Your task to perform on an android device: toggle priority inbox in the gmail app Image 0: 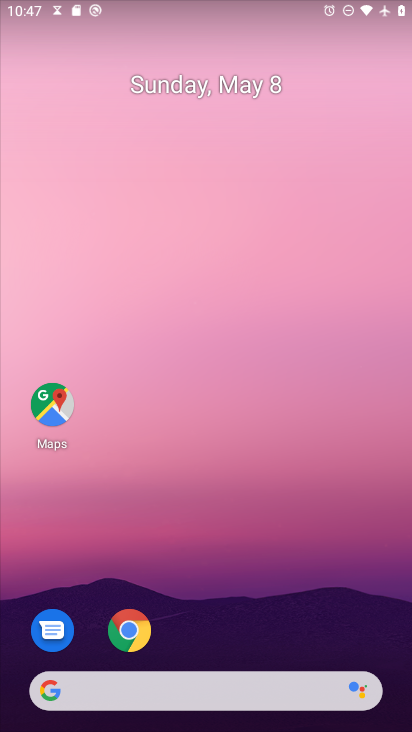
Step 0: drag from (165, 695) to (343, 239)
Your task to perform on an android device: toggle priority inbox in the gmail app Image 1: 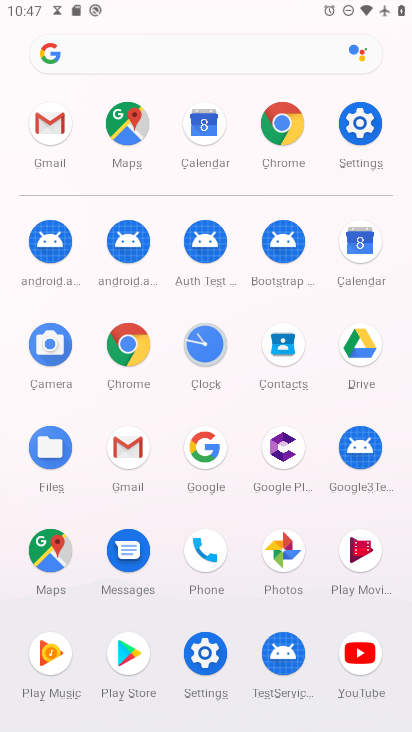
Step 1: click (52, 126)
Your task to perform on an android device: toggle priority inbox in the gmail app Image 2: 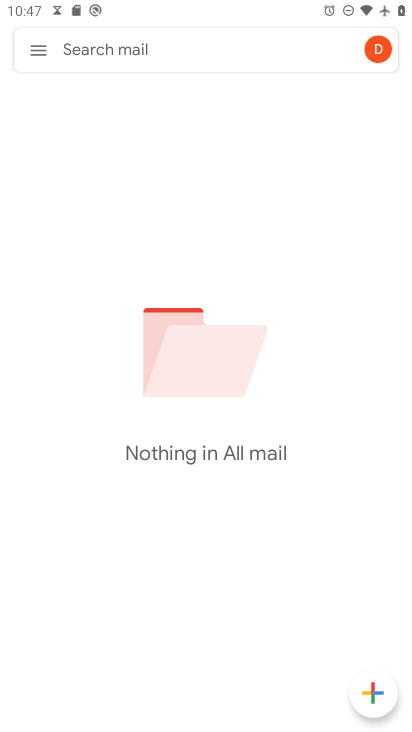
Step 2: click (45, 53)
Your task to perform on an android device: toggle priority inbox in the gmail app Image 3: 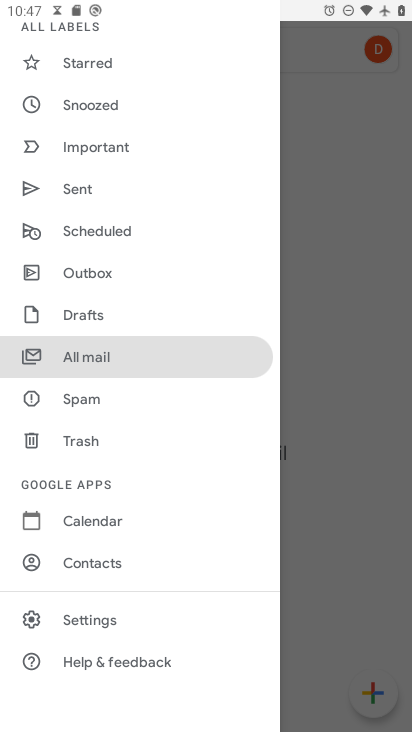
Step 3: click (82, 626)
Your task to perform on an android device: toggle priority inbox in the gmail app Image 4: 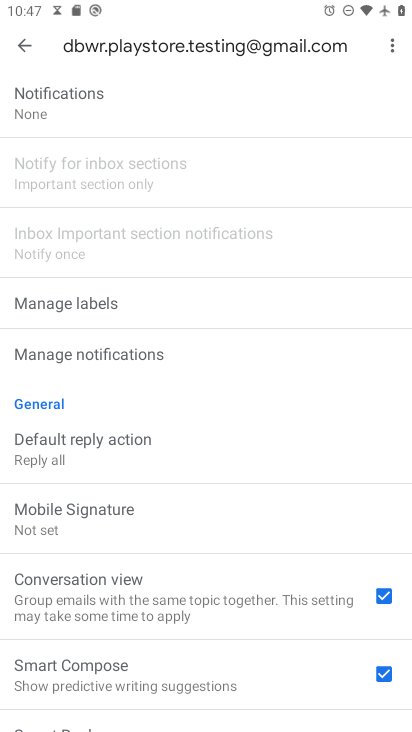
Step 4: drag from (244, 142) to (300, 433)
Your task to perform on an android device: toggle priority inbox in the gmail app Image 5: 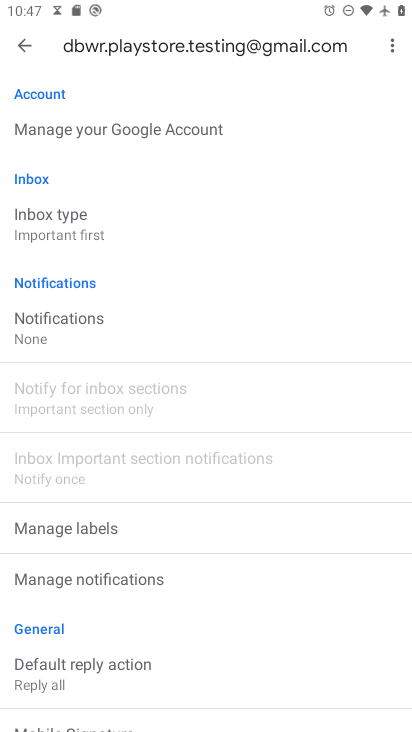
Step 5: click (78, 223)
Your task to perform on an android device: toggle priority inbox in the gmail app Image 6: 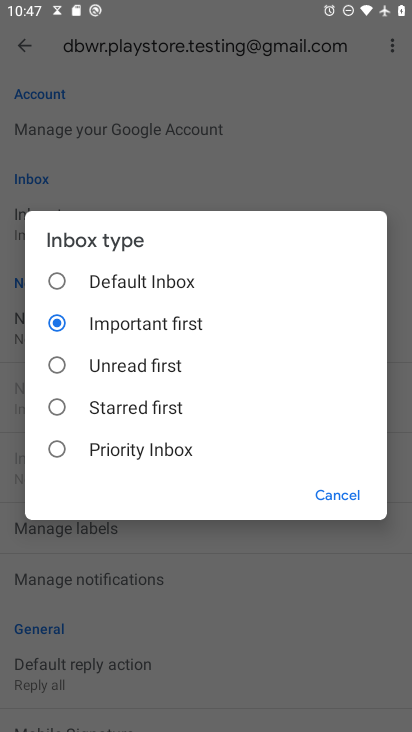
Step 6: click (56, 449)
Your task to perform on an android device: toggle priority inbox in the gmail app Image 7: 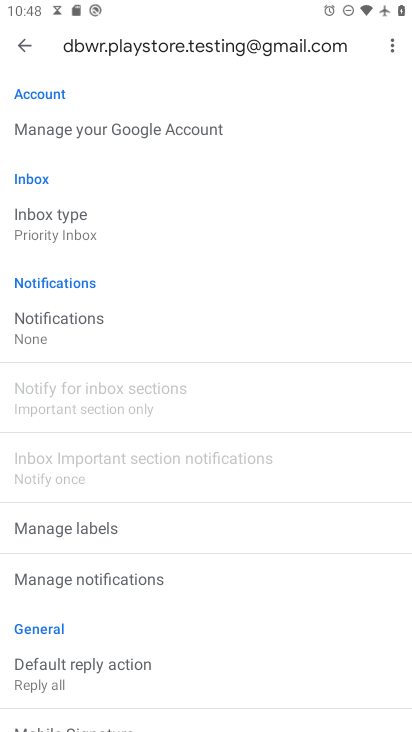
Step 7: task complete